Your task to perform on an android device: Go to Google Image 0: 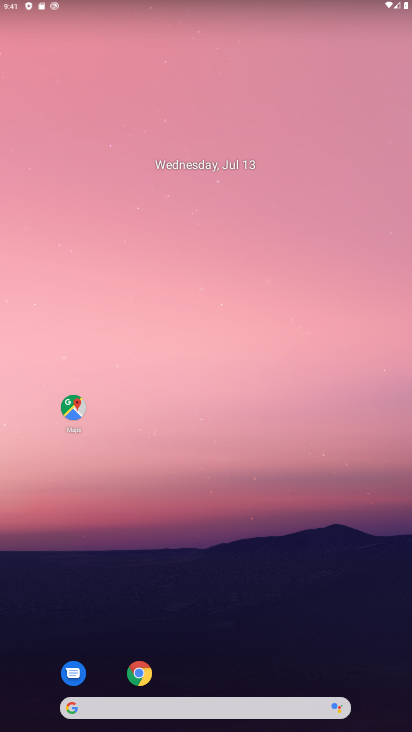
Step 0: drag from (189, 692) to (189, 159)
Your task to perform on an android device: Go to Google Image 1: 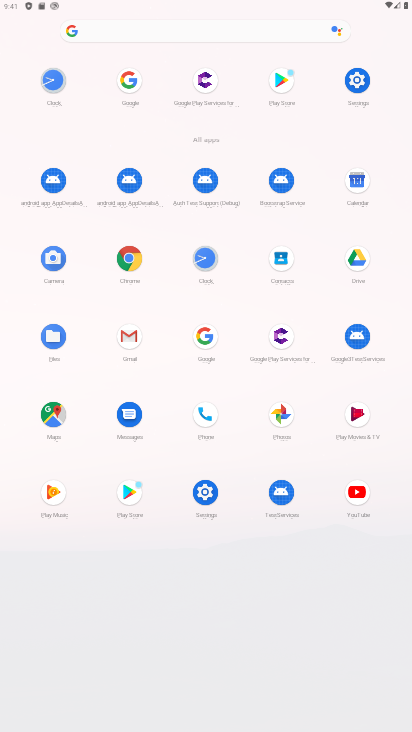
Step 1: click (205, 334)
Your task to perform on an android device: Go to Google Image 2: 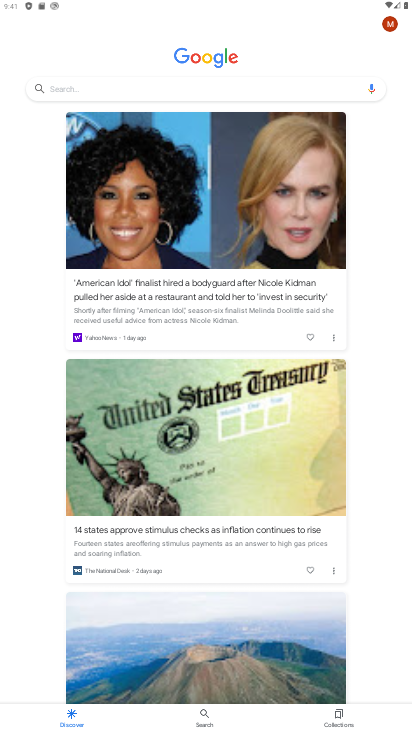
Step 2: task complete